Your task to perform on an android device: Open calendar and show me the fourth week of next month Image 0: 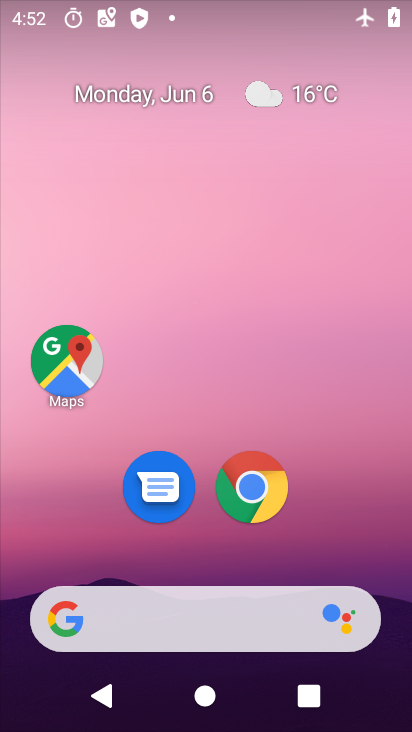
Step 0: drag from (349, 527) to (315, 84)
Your task to perform on an android device: Open calendar and show me the fourth week of next month Image 1: 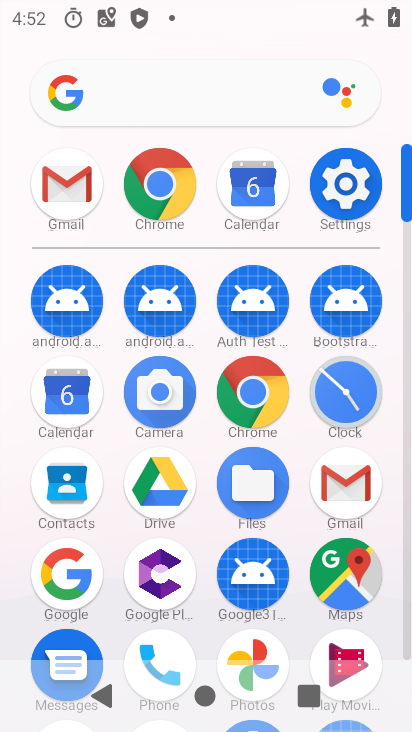
Step 1: click (244, 191)
Your task to perform on an android device: Open calendar and show me the fourth week of next month Image 2: 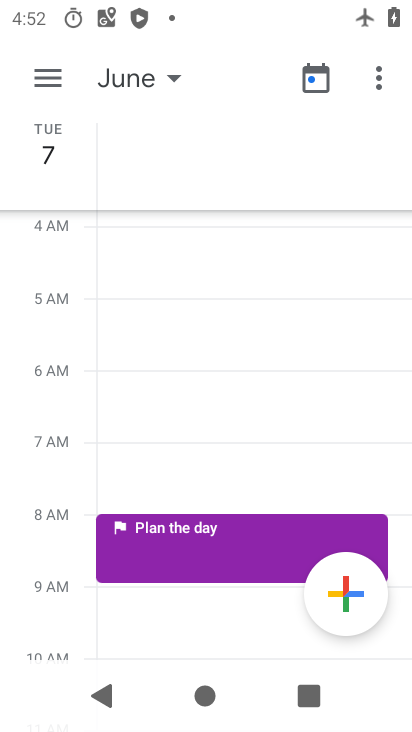
Step 2: click (102, 66)
Your task to perform on an android device: Open calendar and show me the fourth week of next month Image 3: 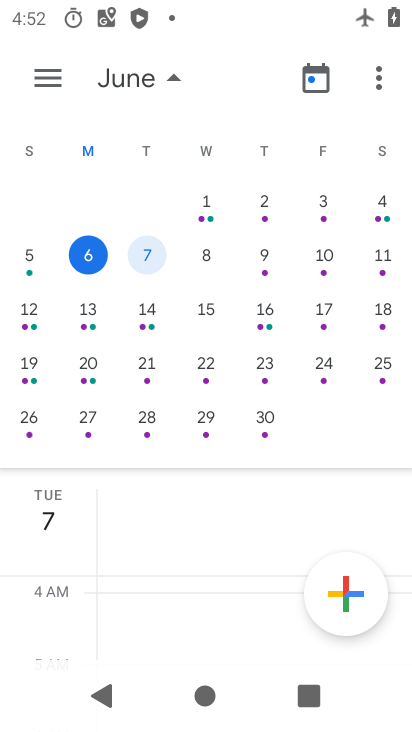
Step 3: drag from (380, 361) to (77, 328)
Your task to perform on an android device: Open calendar and show me the fourth week of next month Image 4: 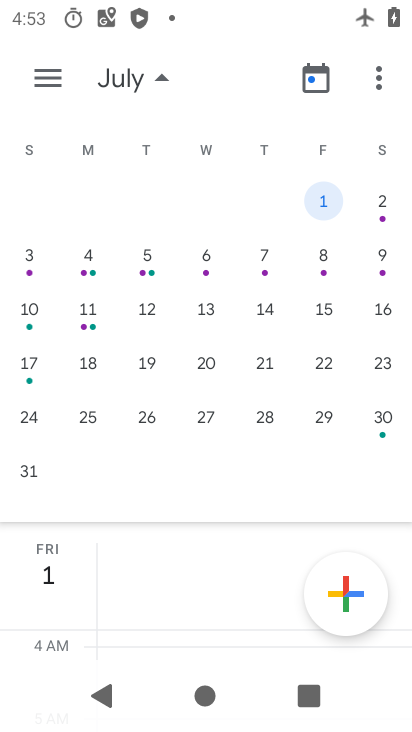
Step 4: click (197, 483)
Your task to perform on an android device: Open calendar and show me the fourth week of next month Image 5: 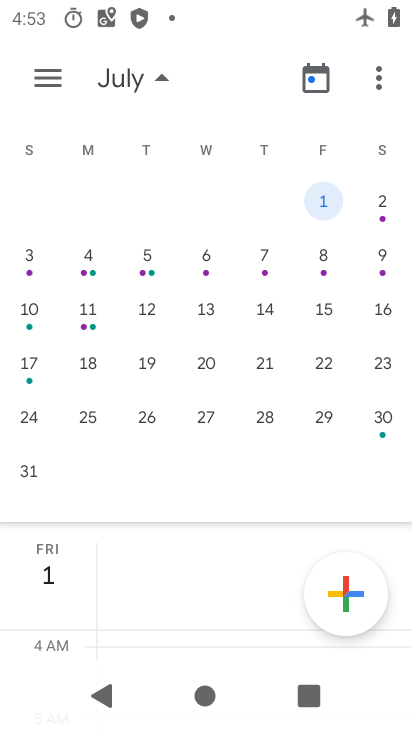
Step 5: click (37, 426)
Your task to perform on an android device: Open calendar and show me the fourth week of next month Image 6: 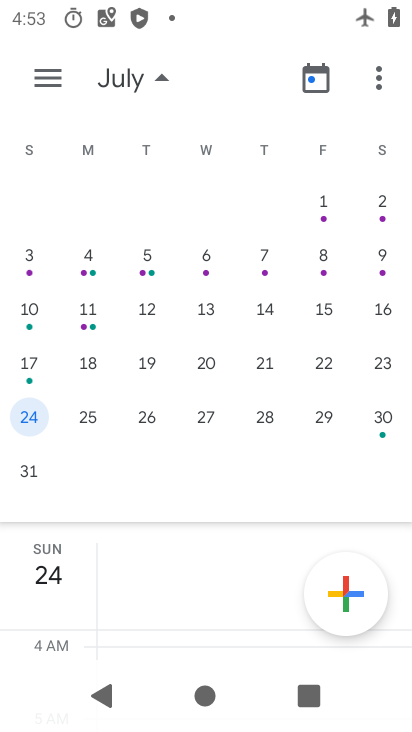
Step 6: click (50, 74)
Your task to perform on an android device: Open calendar and show me the fourth week of next month Image 7: 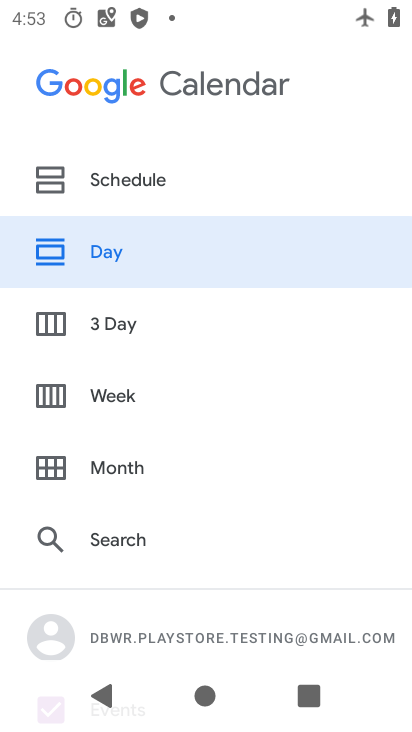
Step 7: click (123, 399)
Your task to perform on an android device: Open calendar and show me the fourth week of next month Image 8: 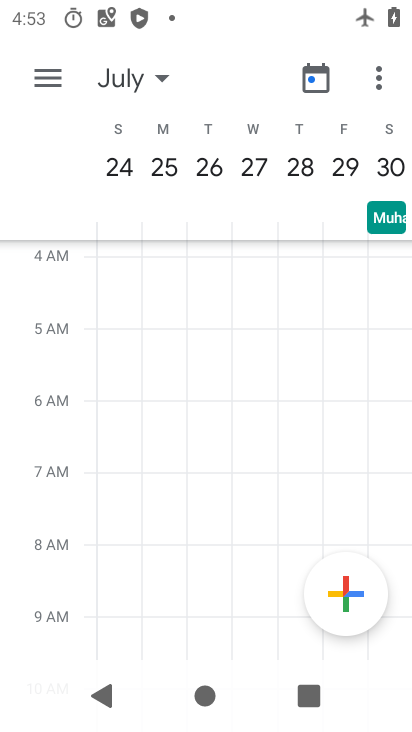
Step 8: task complete